Your task to perform on an android device: refresh tabs in the chrome app Image 0: 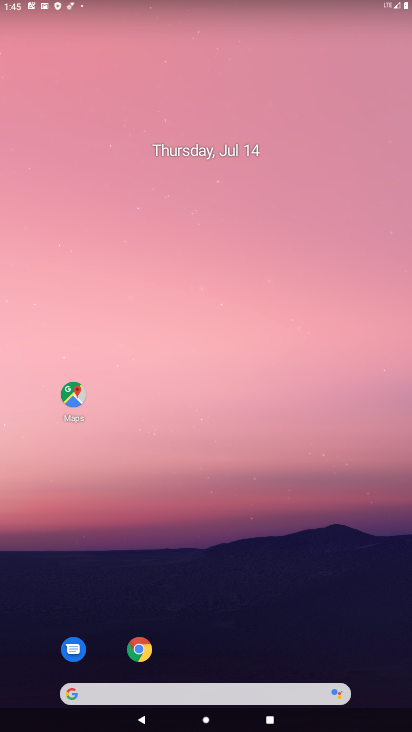
Step 0: drag from (344, 602) to (225, 145)
Your task to perform on an android device: refresh tabs in the chrome app Image 1: 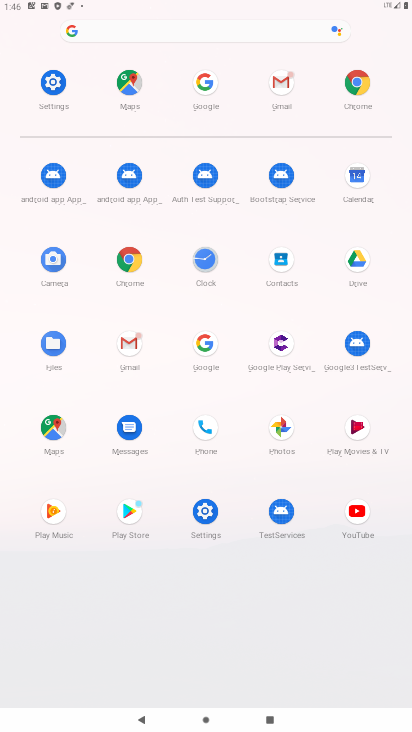
Step 1: click (116, 256)
Your task to perform on an android device: refresh tabs in the chrome app Image 2: 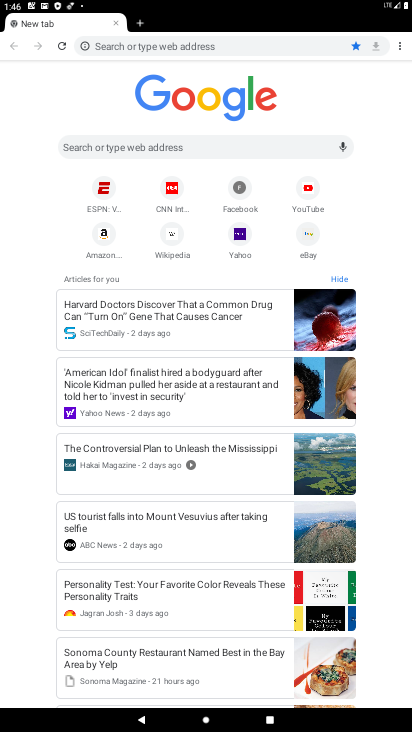
Step 2: click (403, 42)
Your task to perform on an android device: refresh tabs in the chrome app Image 3: 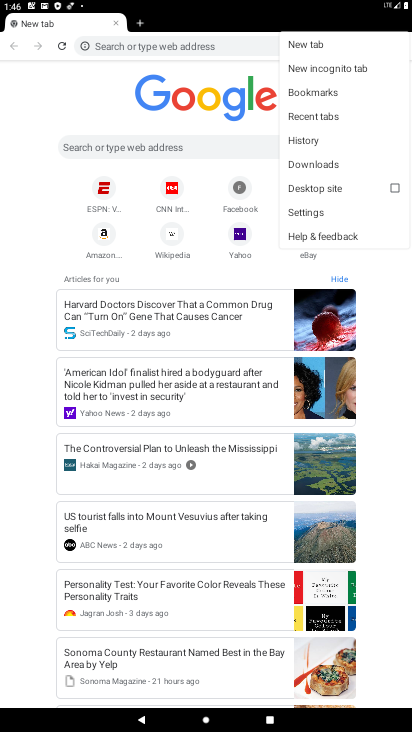
Step 3: click (64, 42)
Your task to perform on an android device: refresh tabs in the chrome app Image 4: 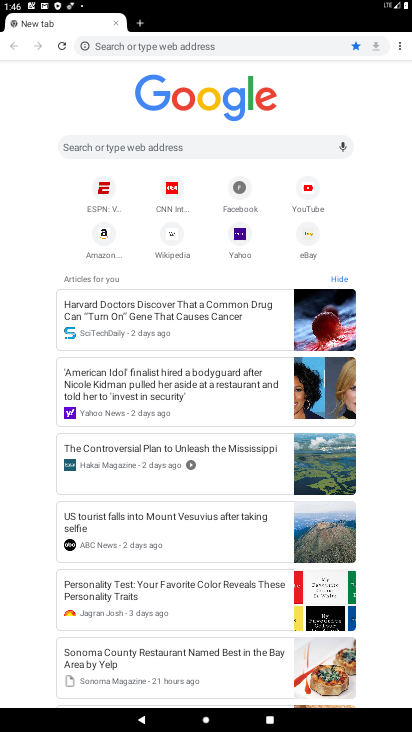
Step 4: click (63, 45)
Your task to perform on an android device: refresh tabs in the chrome app Image 5: 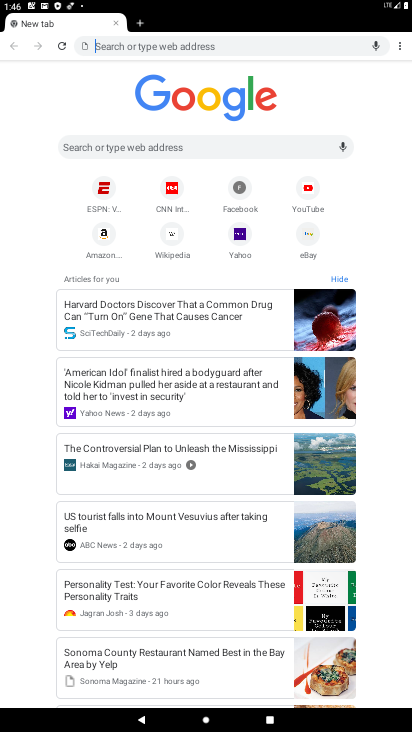
Step 5: task complete